Your task to perform on an android device: Go to internet settings Image 0: 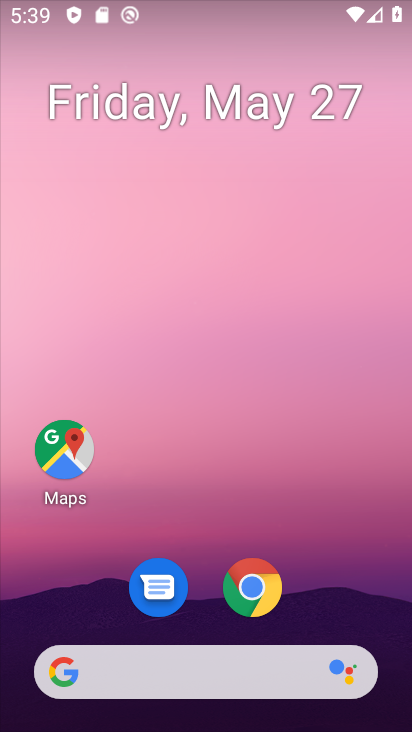
Step 0: drag from (180, 452) to (194, 58)
Your task to perform on an android device: Go to internet settings Image 1: 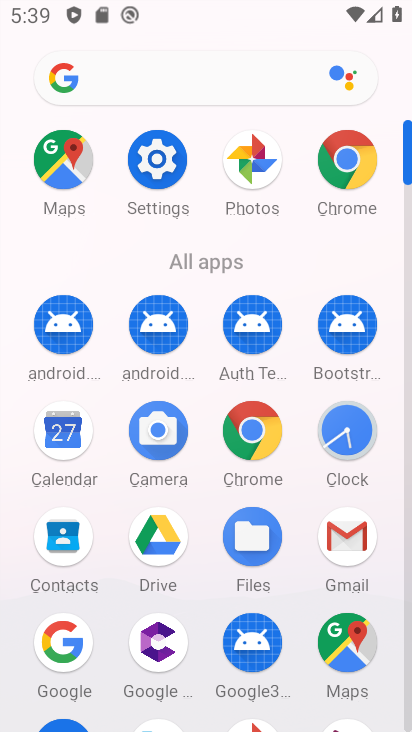
Step 1: click (137, 150)
Your task to perform on an android device: Go to internet settings Image 2: 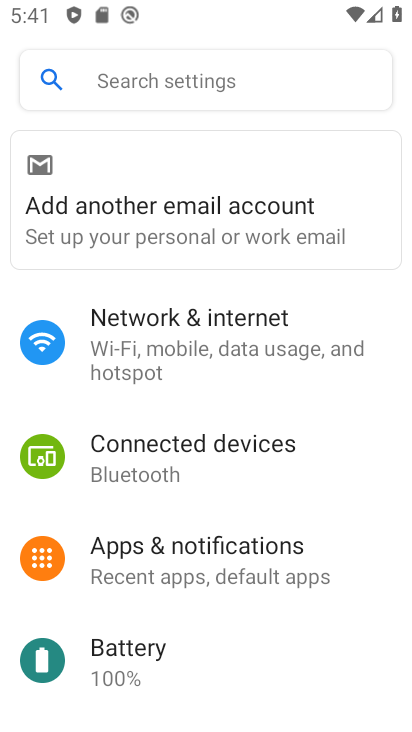
Step 2: click (251, 315)
Your task to perform on an android device: Go to internet settings Image 3: 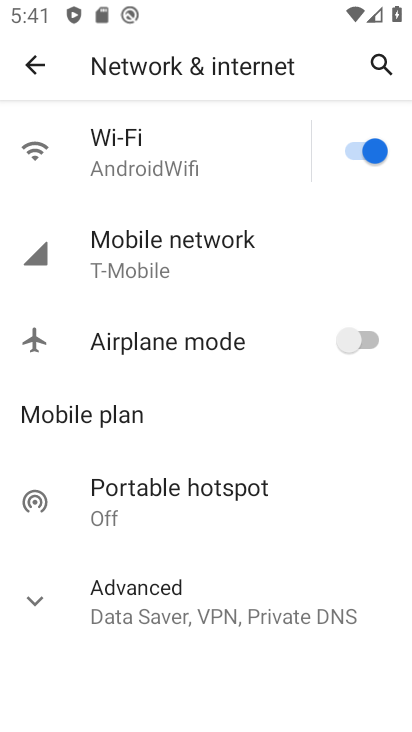
Step 3: task complete